Your task to perform on an android device: check storage Image 0: 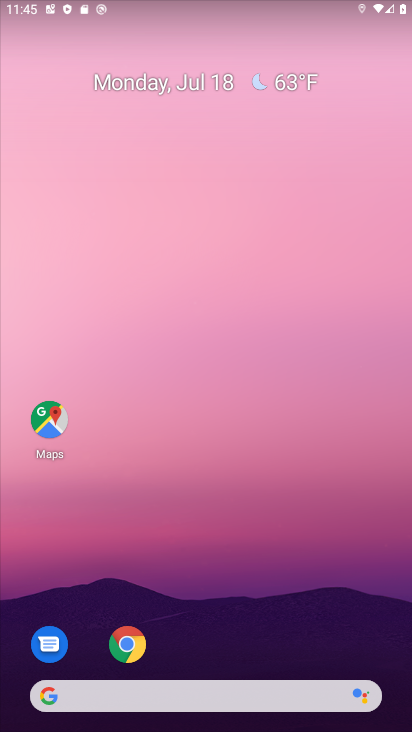
Step 0: drag from (220, 718) to (216, 245)
Your task to perform on an android device: check storage Image 1: 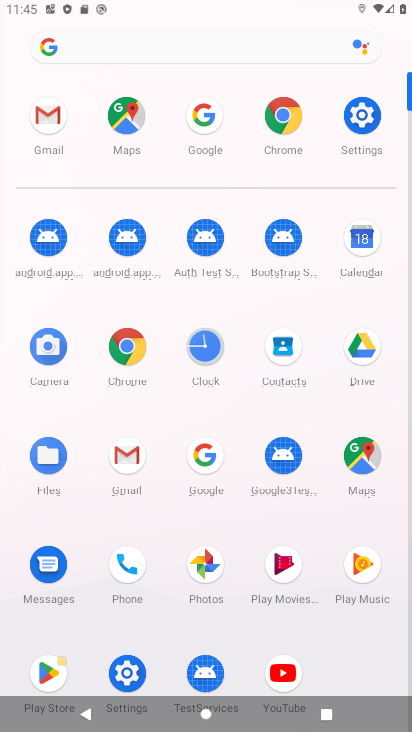
Step 1: click (375, 110)
Your task to perform on an android device: check storage Image 2: 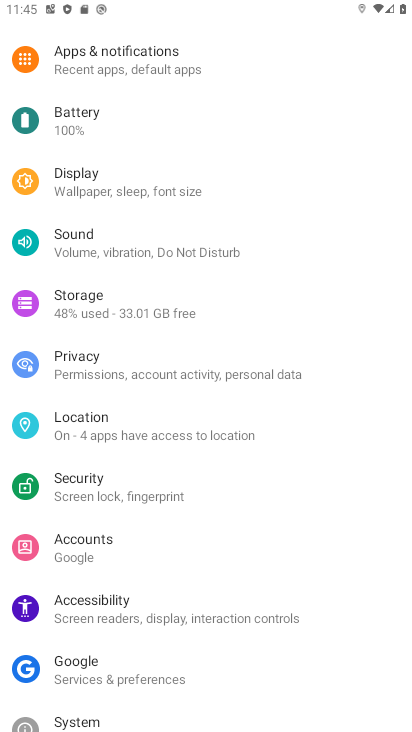
Step 2: click (91, 295)
Your task to perform on an android device: check storage Image 3: 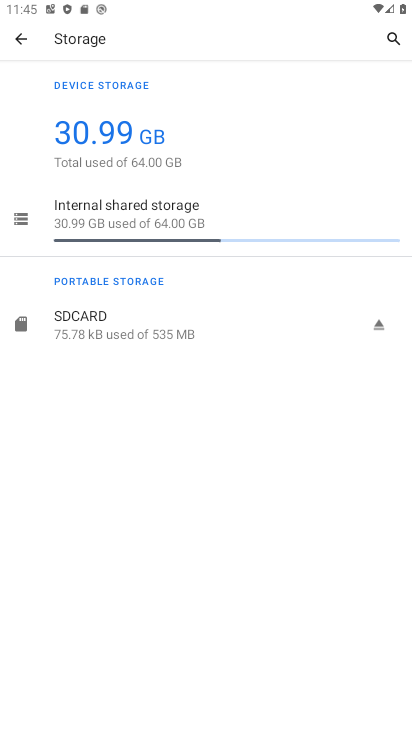
Step 3: task complete